Your task to perform on an android device: change text size in settings app Image 0: 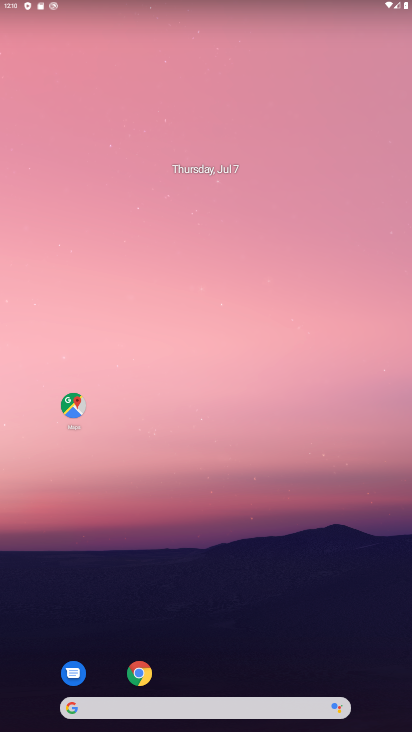
Step 0: press home button
Your task to perform on an android device: change text size in settings app Image 1: 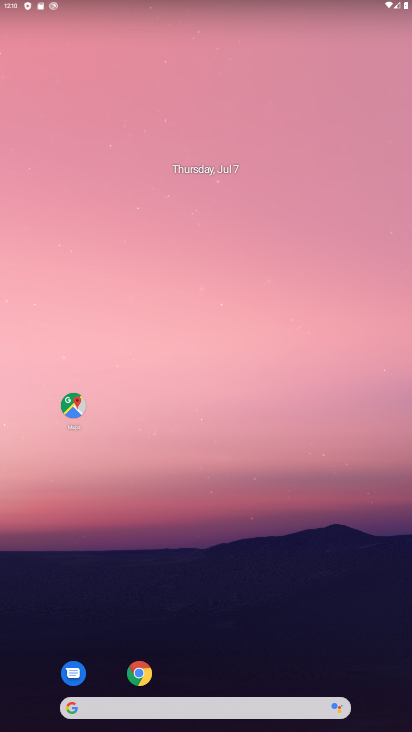
Step 1: drag from (222, 675) to (339, 5)
Your task to perform on an android device: change text size in settings app Image 2: 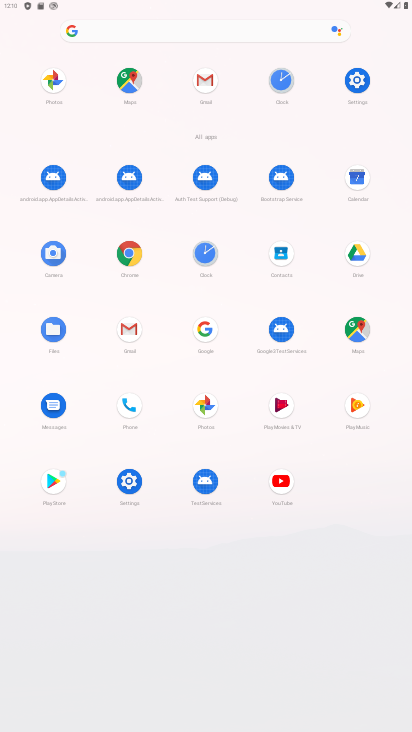
Step 2: click (134, 481)
Your task to perform on an android device: change text size in settings app Image 3: 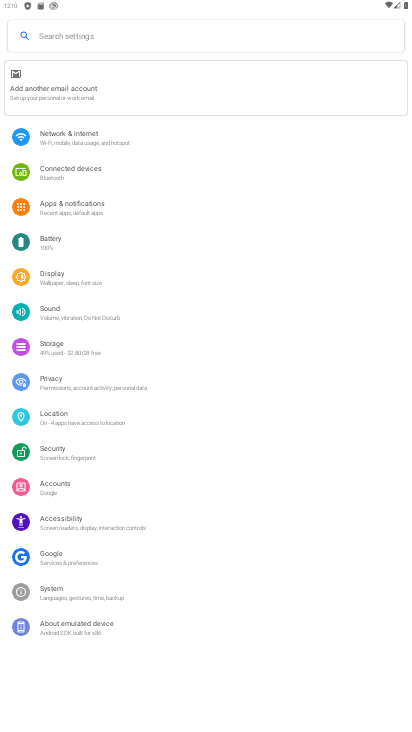
Step 3: click (71, 281)
Your task to perform on an android device: change text size in settings app Image 4: 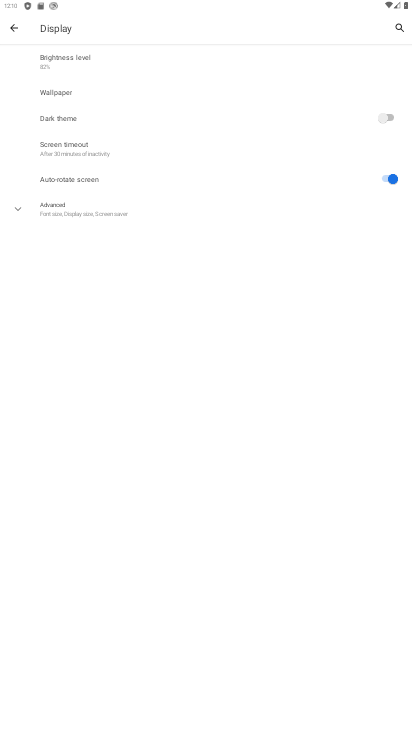
Step 4: drag from (93, 482) to (149, 90)
Your task to perform on an android device: change text size in settings app Image 5: 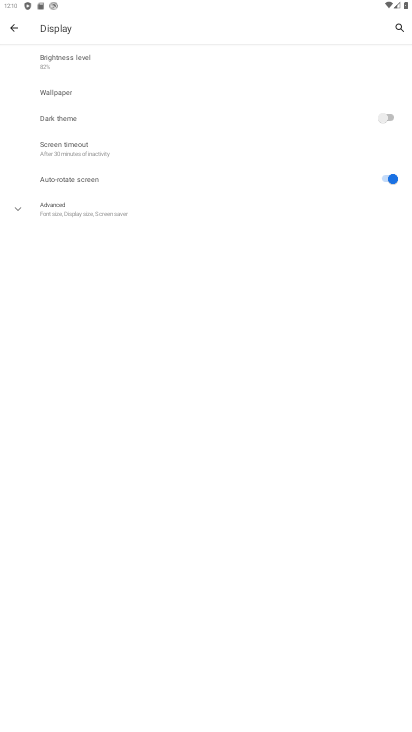
Step 5: click (14, 31)
Your task to perform on an android device: change text size in settings app Image 6: 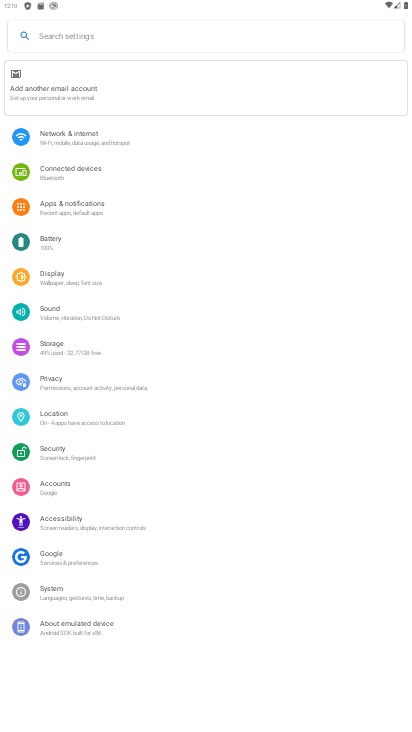
Step 6: click (148, 31)
Your task to perform on an android device: change text size in settings app Image 7: 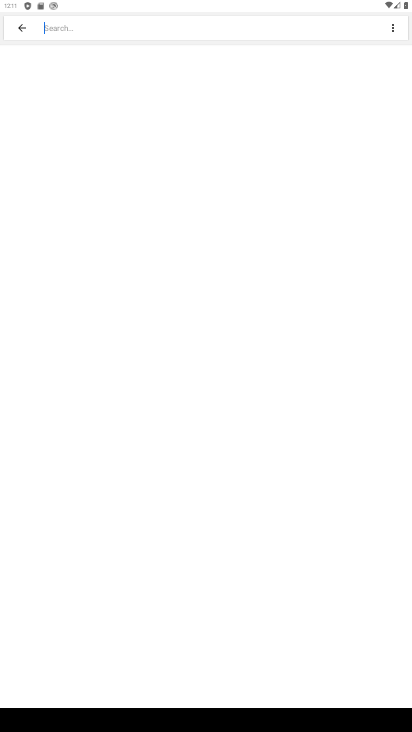
Step 7: type "text"
Your task to perform on an android device: change text size in settings app Image 8: 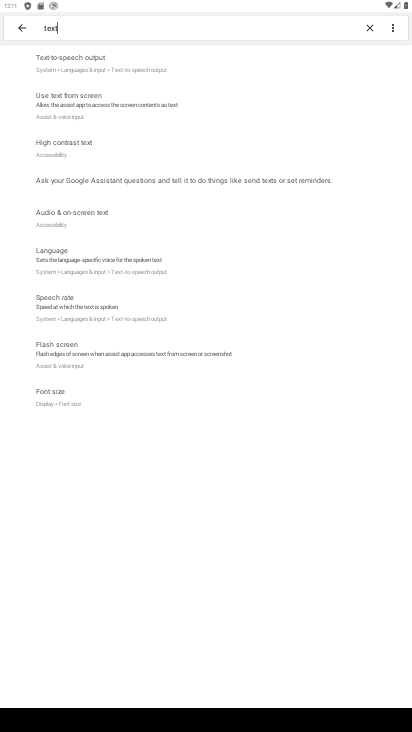
Step 8: click (154, 69)
Your task to perform on an android device: change text size in settings app Image 9: 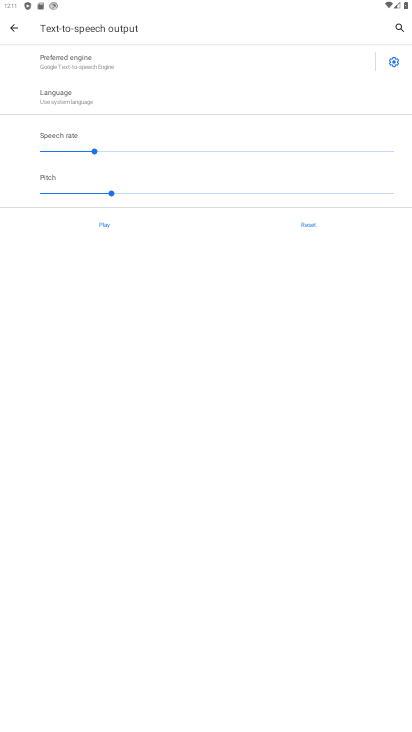
Step 9: task complete